Your task to perform on an android device: Show me popular videos on Youtube Image 0: 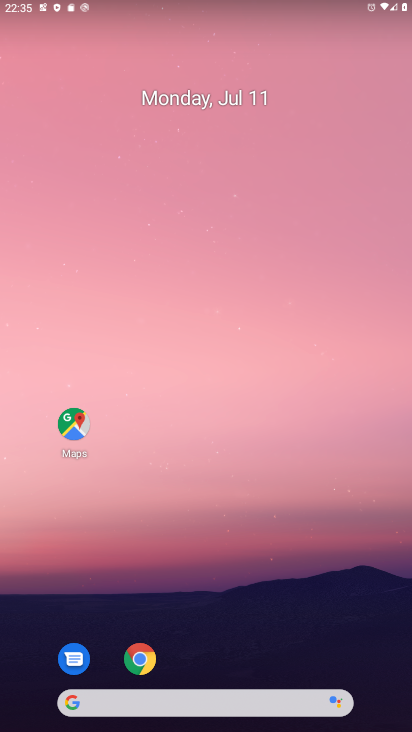
Step 0: drag from (225, 632) to (198, 238)
Your task to perform on an android device: Show me popular videos on Youtube Image 1: 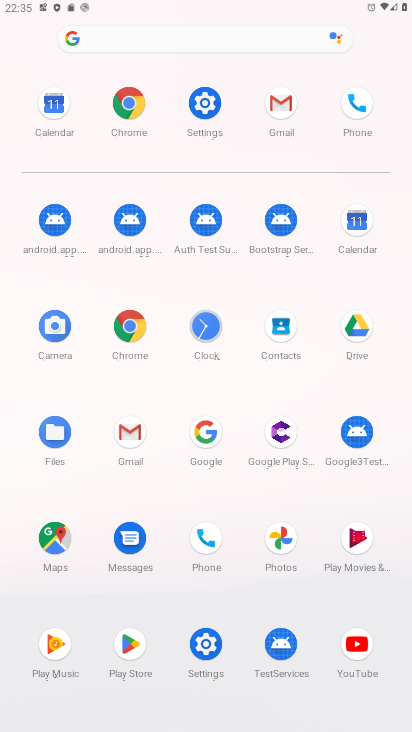
Step 1: click (355, 649)
Your task to perform on an android device: Show me popular videos on Youtube Image 2: 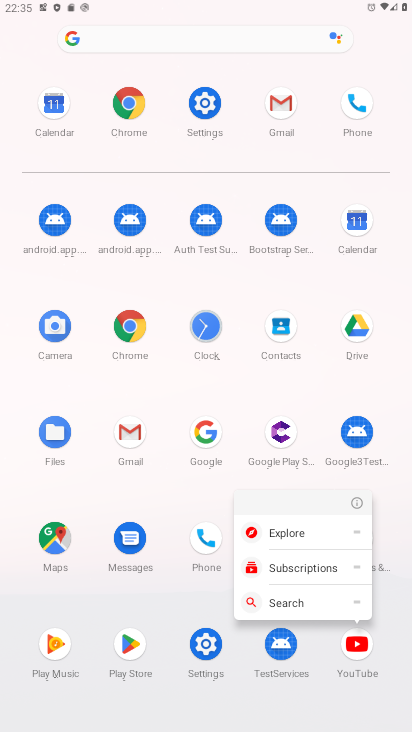
Step 2: click (356, 502)
Your task to perform on an android device: Show me popular videos on Youtube Image 3: 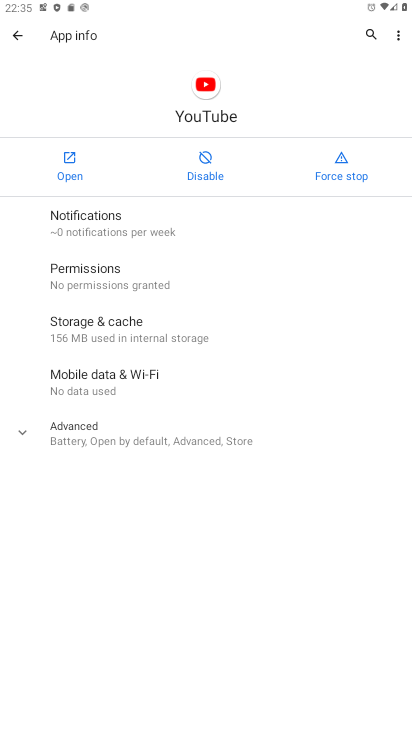
Step 3: click (68, 195)
Your task to perform on an android device: Show me popular videos on Youtube Image 4: 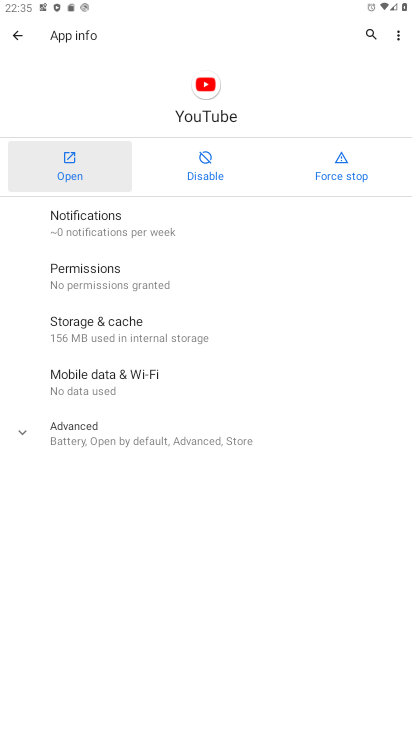
Step 4: click (78, 174)
Your task to perform on an android device: Show me popular videos on Youtube Image 5: 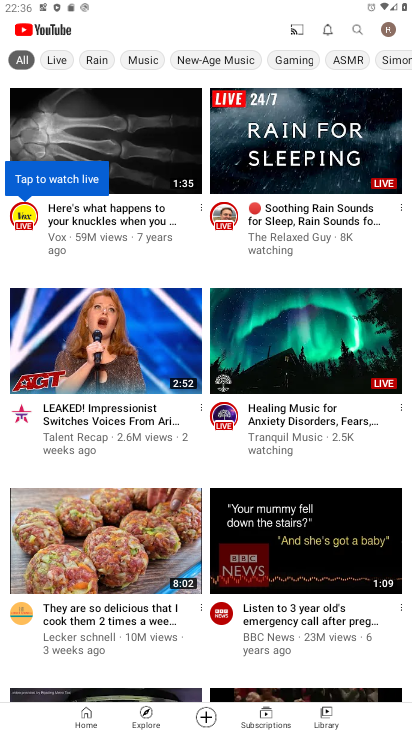
Step 5: task complete